Your task to perform on an android device: check storage Image 0: 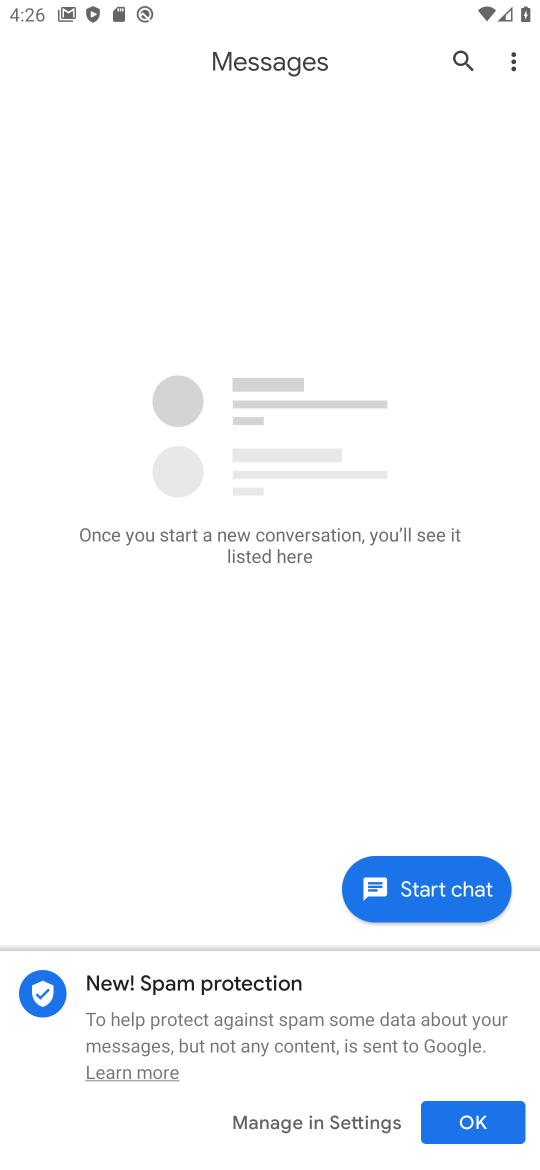
Step 0: press home button
Your task to perform on an android device: check storage Image 1: 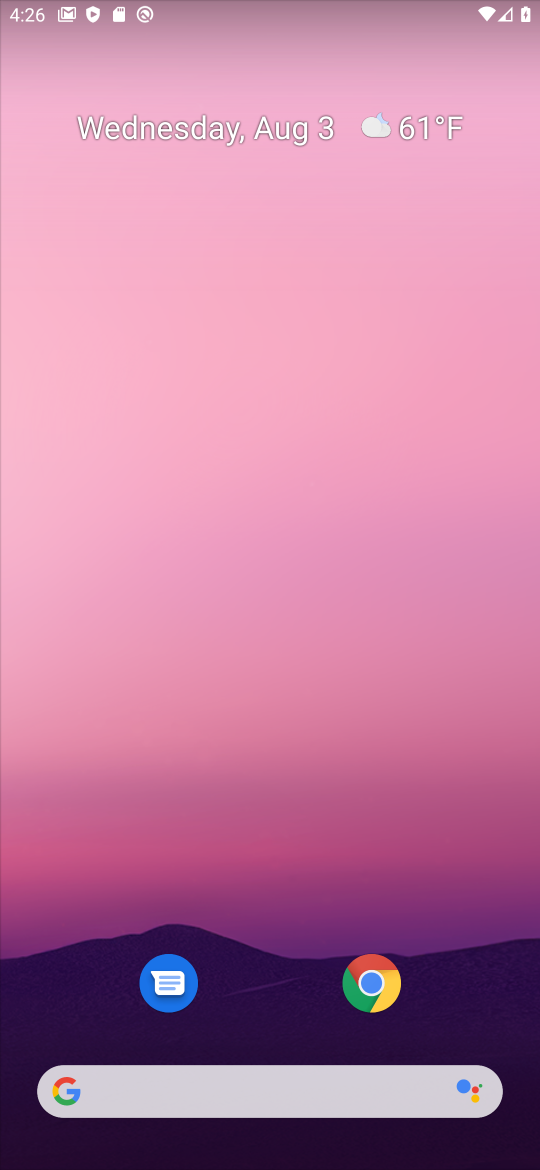
Step 1: drag from (275, 428) to (368, 73)
Your task to perform on an android device: check storage Image 2: 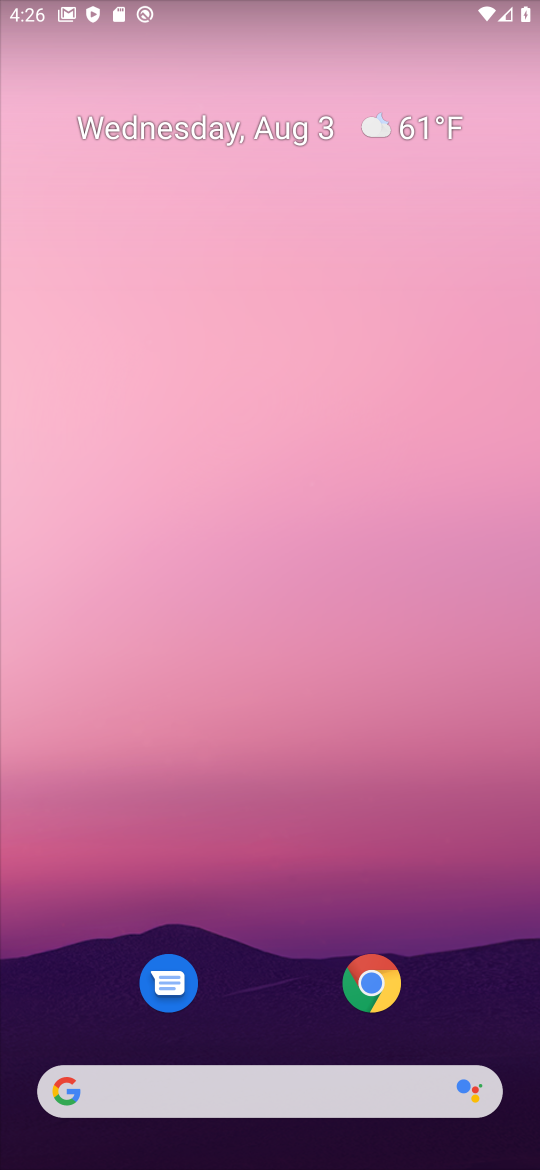
Step 2: drag from (262, 922) to (275, 2)
Your task to perform on an android device: check storage Image 3: 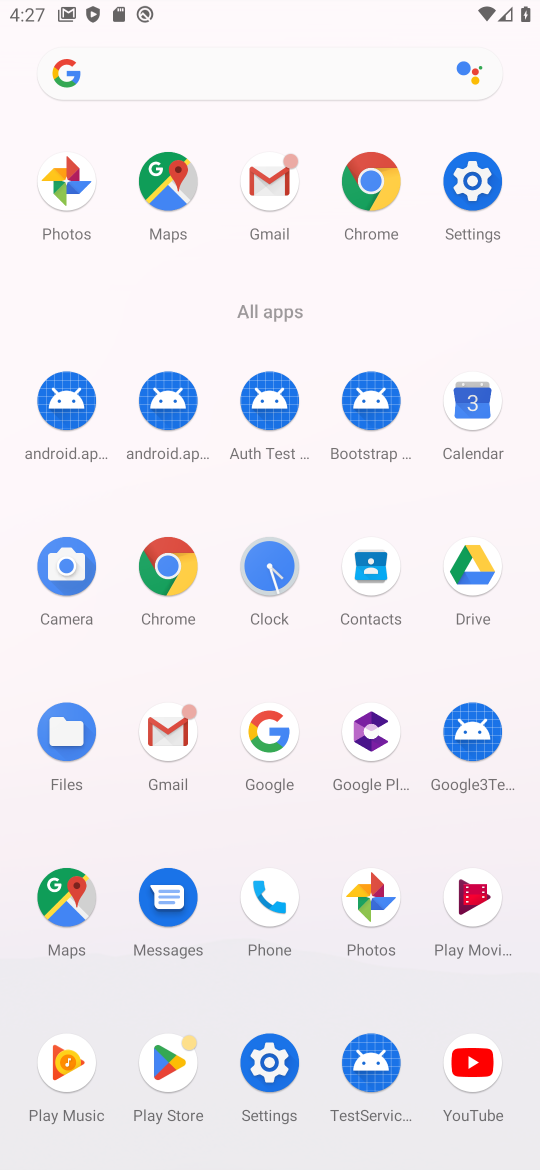
Step 3: press home button
Your task to perform on an android device: check storage Image 4: 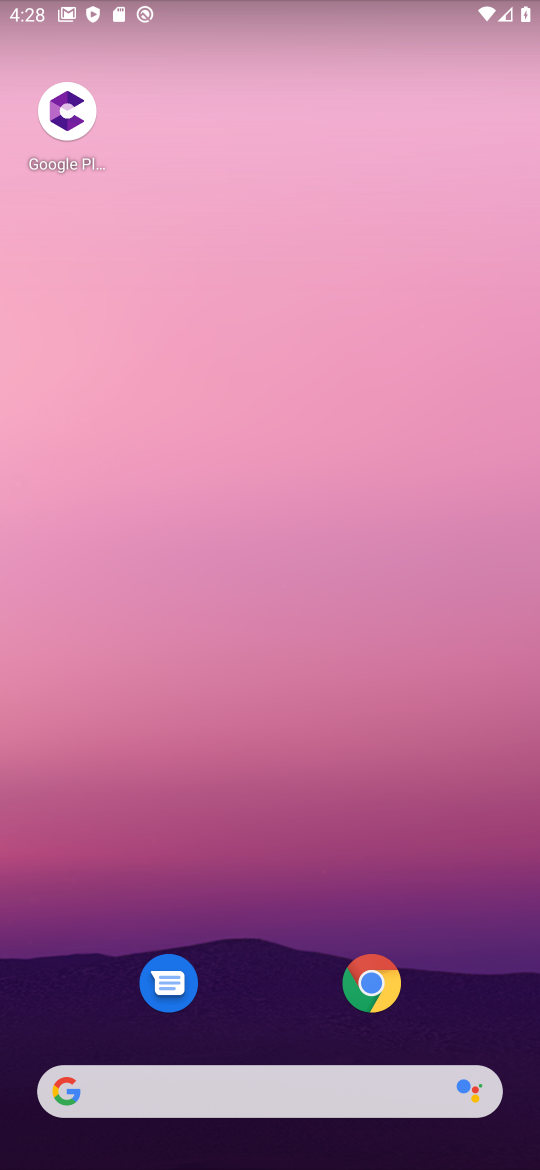
Step 4: press home button
Your task to perform on an android device: check storage Image 5: 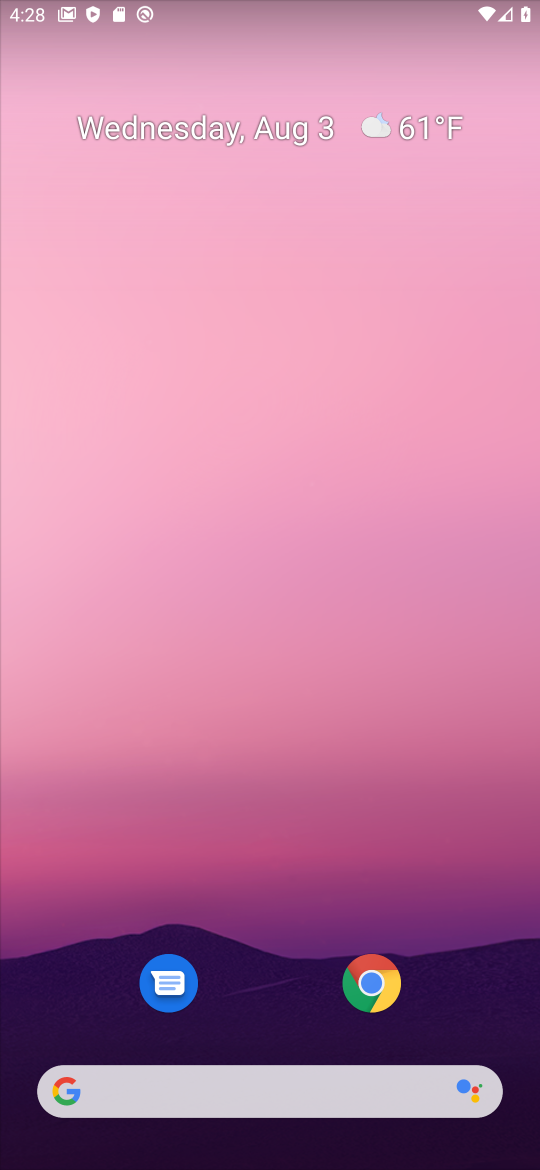
Step 5: drag from (399, 860) to (409, 191)
Your task to perform on an android device: check storage Image 6: 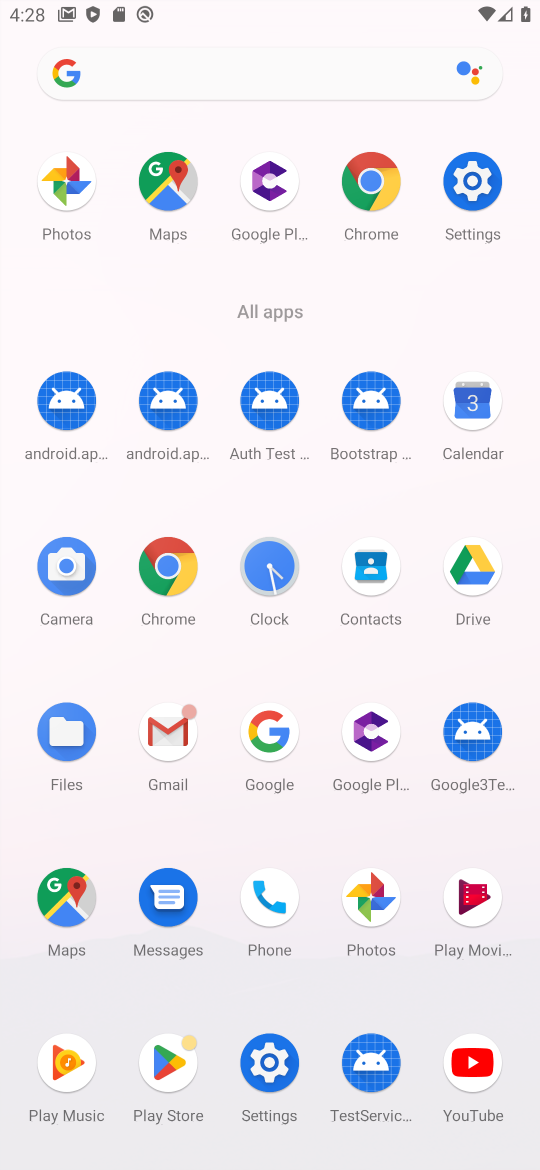
Step 6: click (480, 188)
Your task to perform on an android device: check storage Image 7: 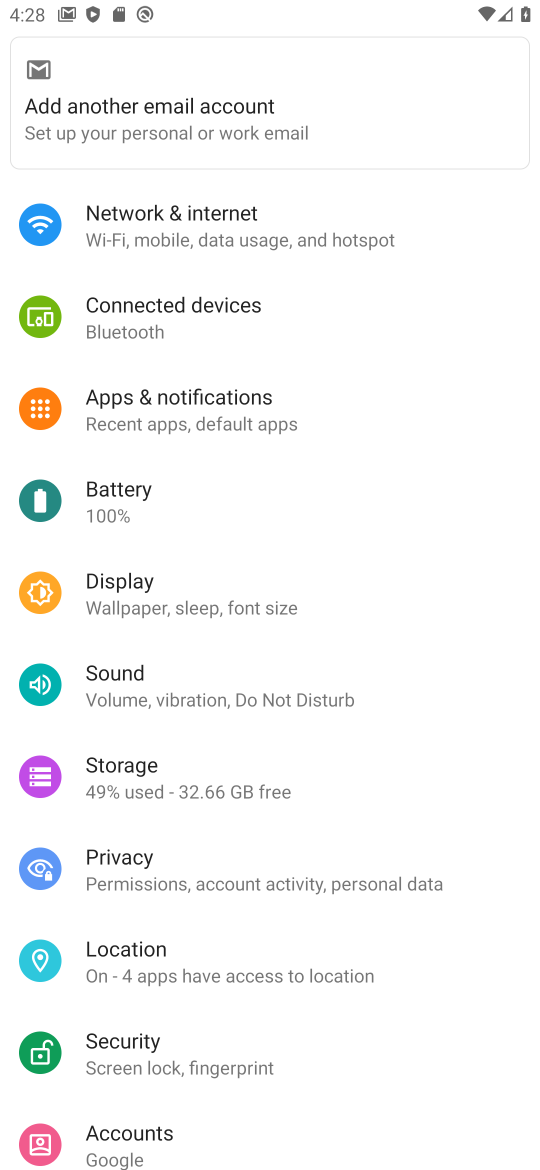
Step 7: click (237, 772)
Your task to perform on an android device: check storage Image 8: 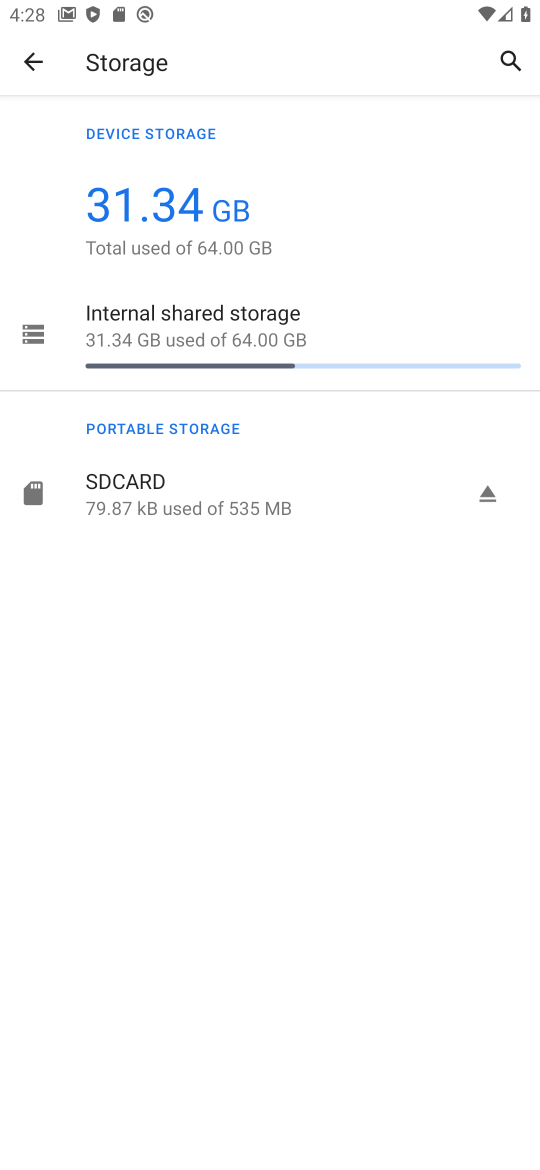
Step 8: task complete